Your task to perform on an android device: What is the recent news? Image 0: 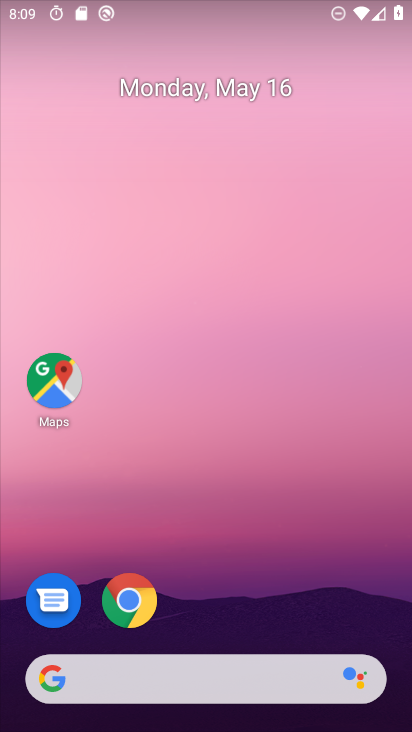
Step 0: click (56, 668)
Your task to perform on an android device: What is the recent news? Image 1: 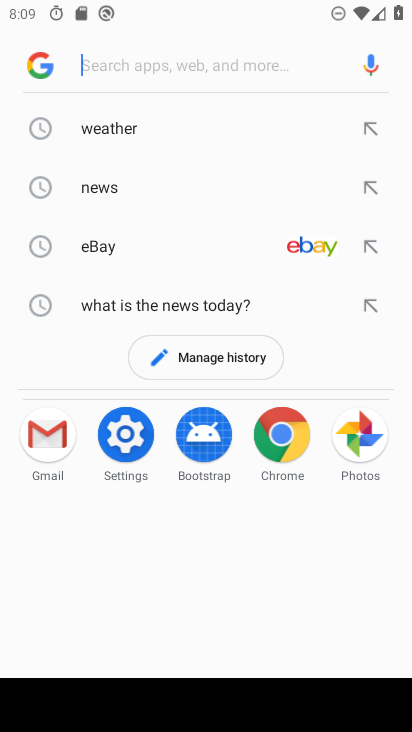
Step 1: click (92, 189)
Your task to perform on an android device: What is the recent news? Image 2: 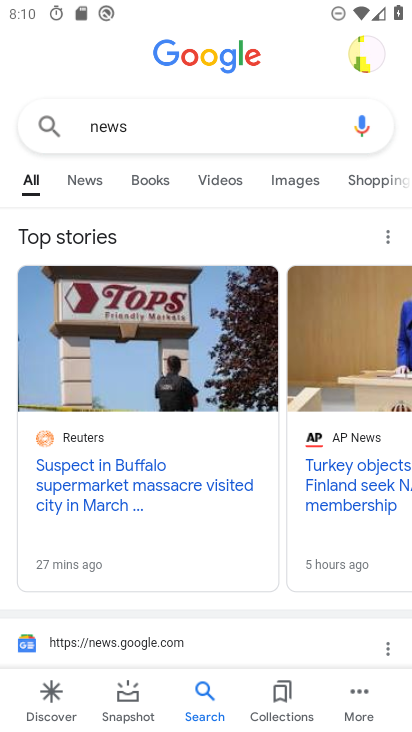
Step 2: click (85, 181)
Your task to perform on an android device: What is the recent news? Image 3: 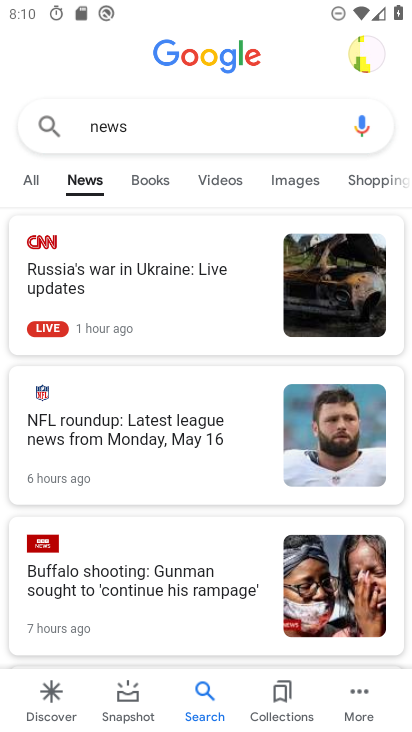
Step 3: task complete